Your task to perform on an android device: Open the stopwatch Image 0: 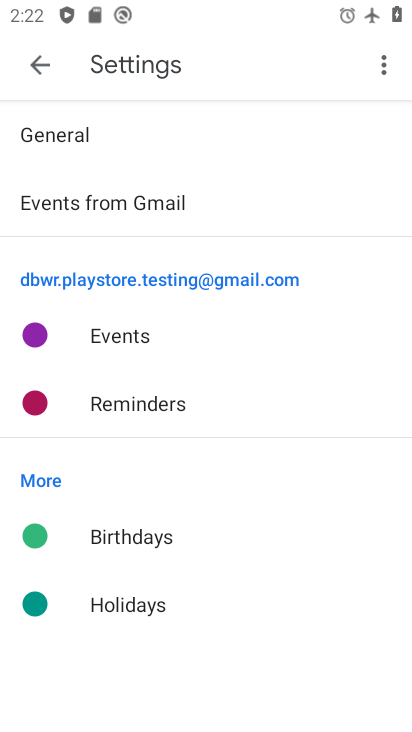
Step 0: press home button
Your task to perform on an android device: Open the stopwatch Image 1: 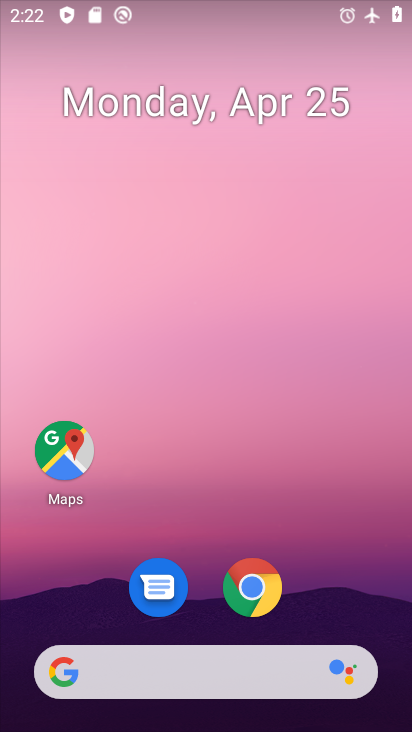
Step 1: drag from (352, 585) to (330, 116)
Your task to perform on an android device: Open the stopwatch Image 2: 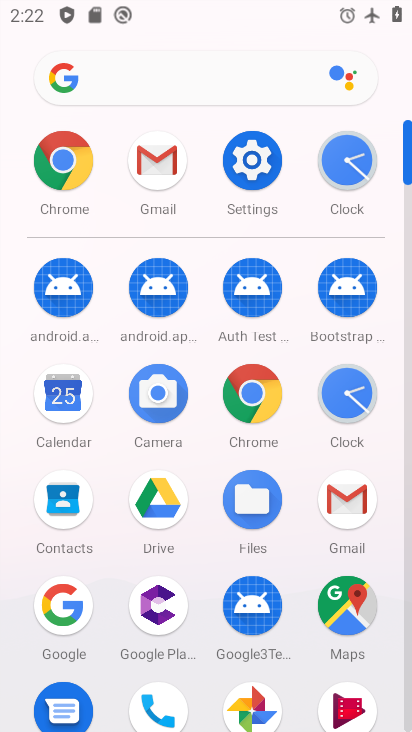
Step 2: click (347, 405)
Your task to perform on an android device: Open the stopwatch Image 3: 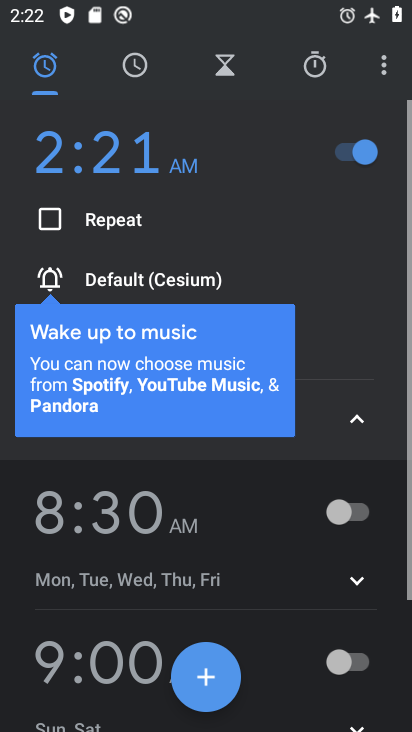
Step 3: click (324, 73)
Your task to perform on an android device: Open the stopwatch Image 4: 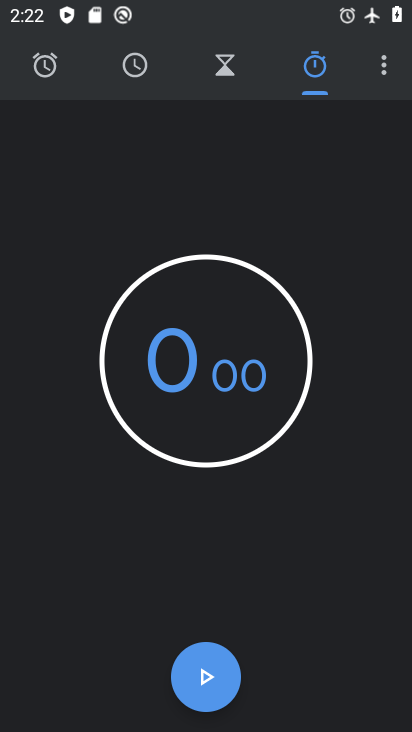
Step 4: click (190, 670)
Your task to perform on an android device: Open the stopwatch Image 5: 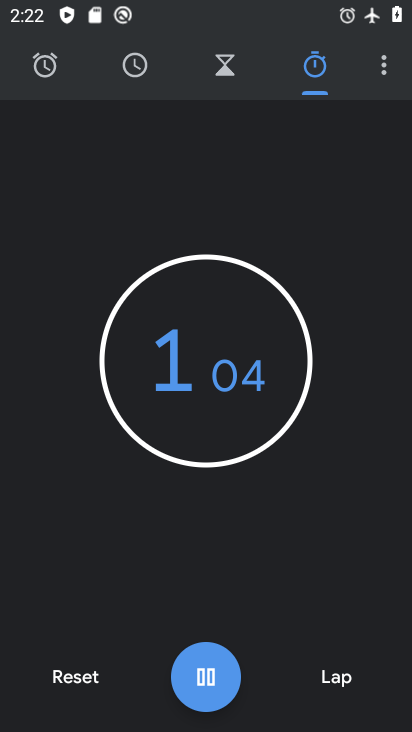
Step 5: click (203, 658)
Your task to perform on an android device: Open the stopwatch Image 6: 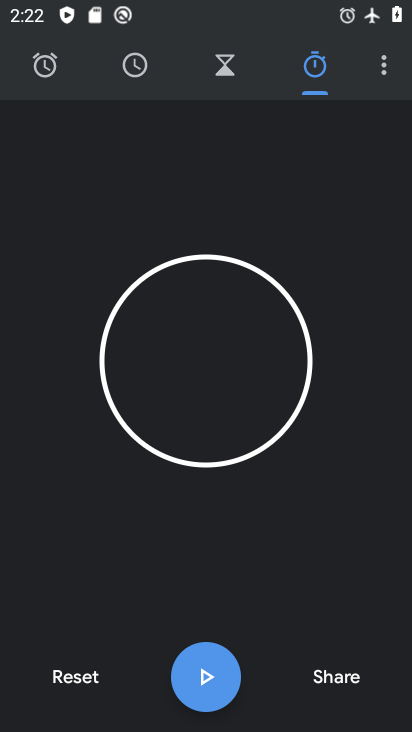
Step 6: task complete